Your task to perform on an android device: install app "Facebook" Image 0: 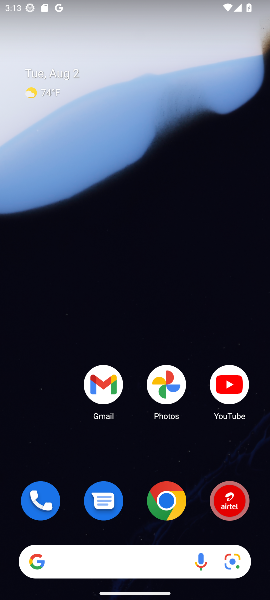
Step 0: drag from (132, 446) to (123, 5)
Your task to perform on an android device: install app "Facebook" Image 1: 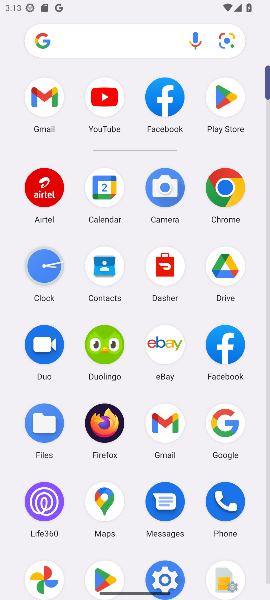
Step 1: click (214, 92)
Your task to perform on an android device: install app "Facebook" Image 2: 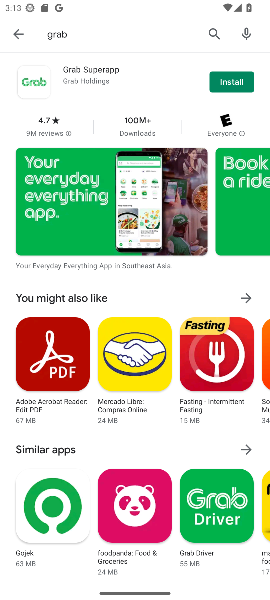
Step 2: click (209, 35)
Your task to perform on an android device: install app "Facebook" Image 3: 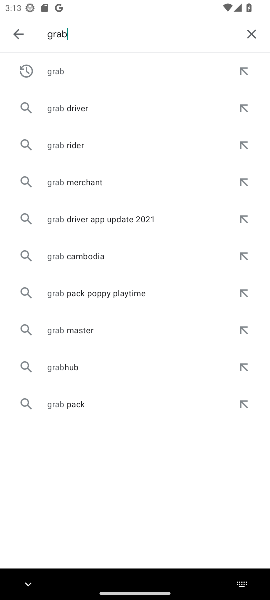
Step 3: click (251, 32)
Your task to perform on an android device: install app "Facebook" Image 4: 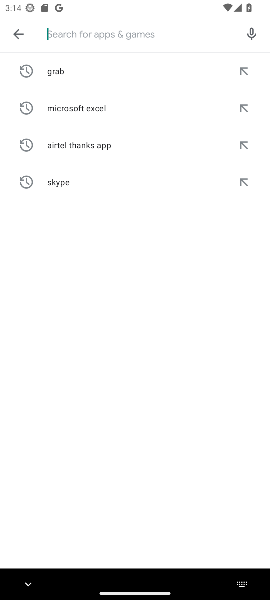
Step 4: type "Facebook"
Your task to perform on an android device: install app "Facebook" Image 5: 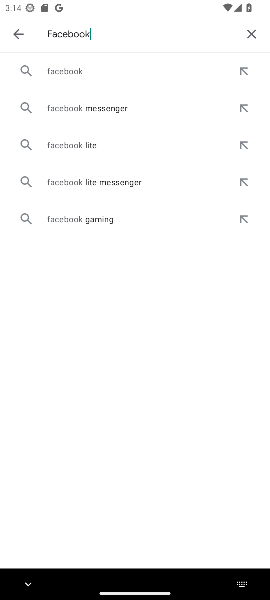
Step 5: click (70, 70)
Your task to perform on an android device: install app "Facebook" Image 6: 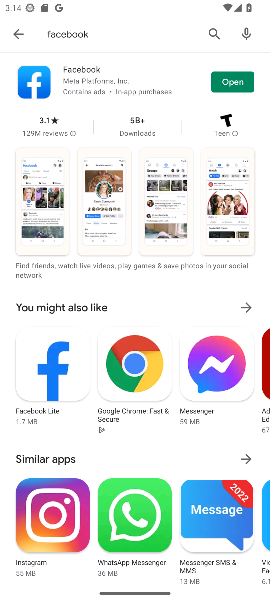
Step 6: task complete